Your task to perform on an android device: check google app version Image 0: 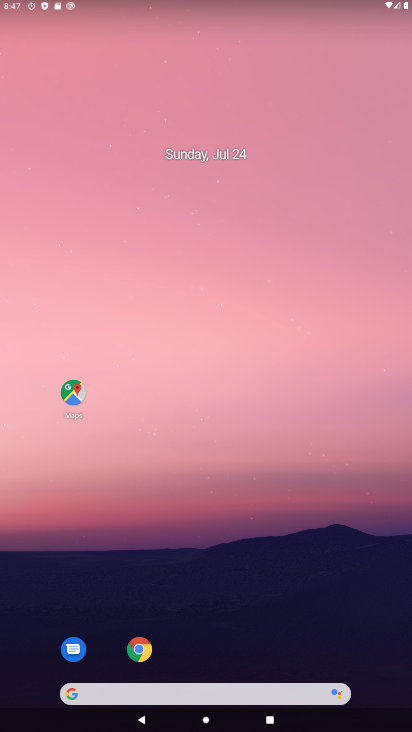
Step 0: drag from (205, 298) to (265, 76)
Your task to perform on an android device: check google app version Image 1: 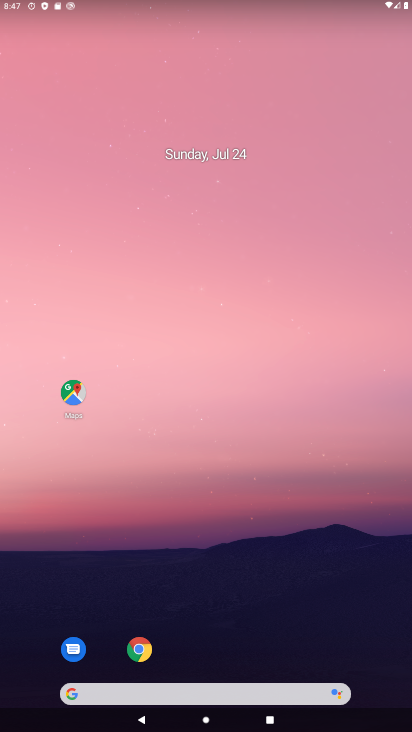
Step 1: drag from (24, 686) to (166, 171)
Your task to perform on an android device: check google app version Image 2: 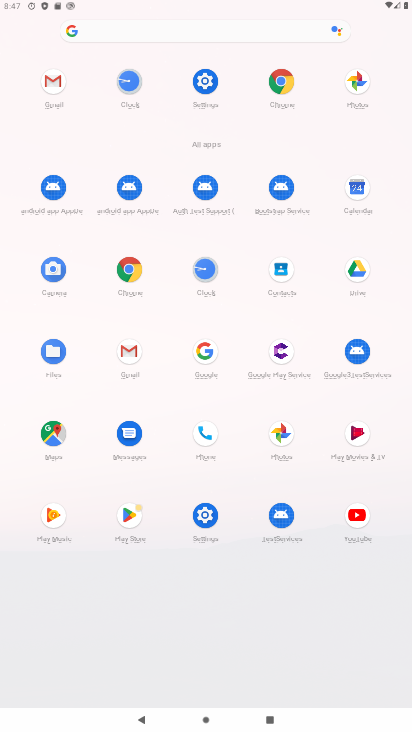
Step 2: click (188, 520)
Your task to perform on an android device: check google app version Image 3: 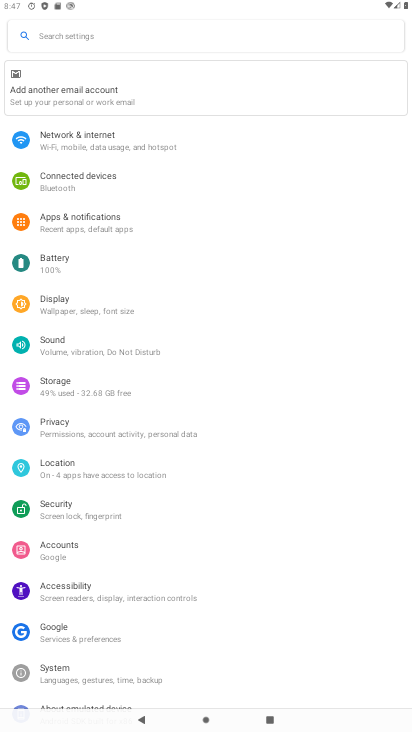
Step 3: drag from (254, 561) to (254, 266)
Your task to perform on an android device: check google app version Image 4: 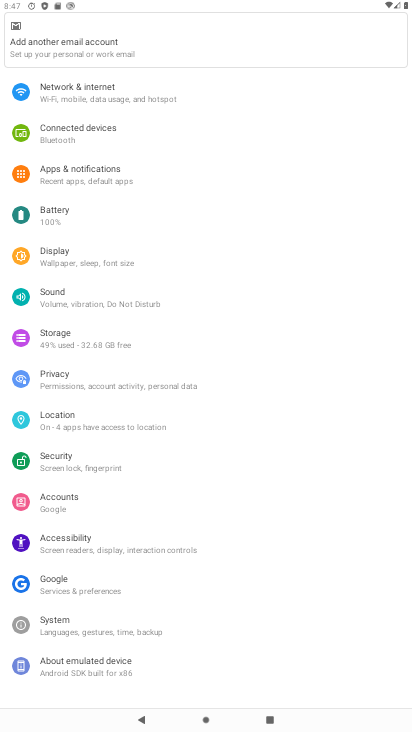
Step 4: click (74, 660)
Your task to perform on an android device: check google app version Image 5: 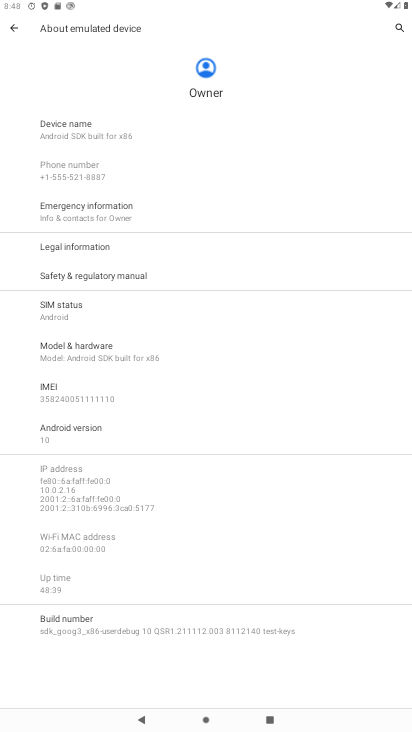
Step 5: drag from (240, 618) to (220, 382)
Your task to perform on an android device: check google app version Image 6: 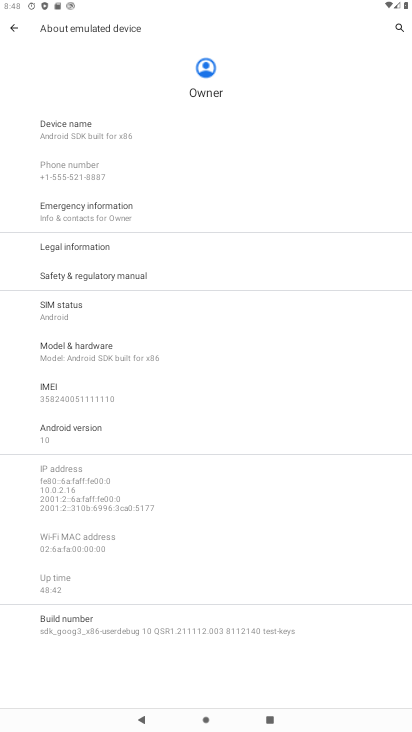
Step 6: drag from (250, 661) to (246, 404)
Your task to perform on an android device: check google app version Image 7: 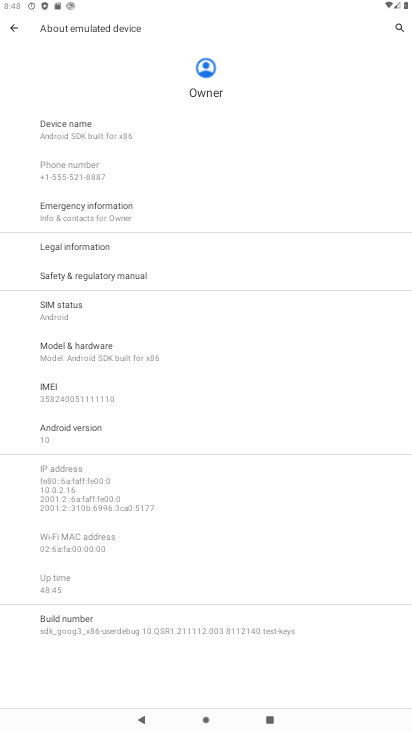
Step 7: click (101, 624)
Your task to perform on an android device: check google app version Image 8: 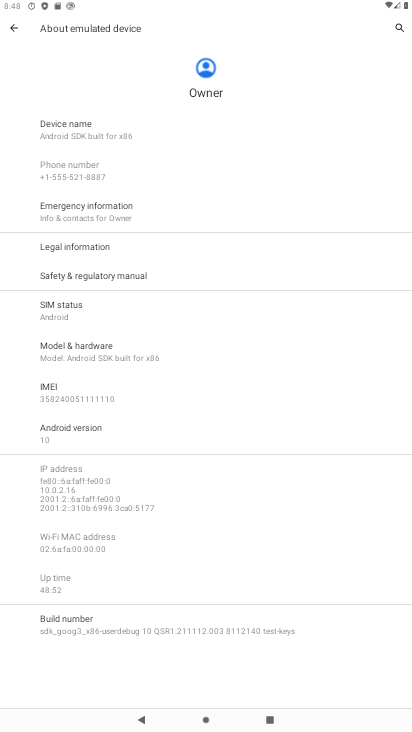
Step 8: click (48, 616)
Your task to perform on an android device: check google app version Image 9: 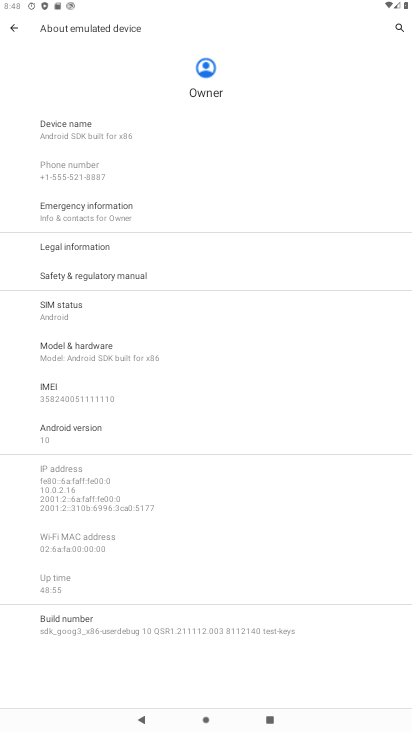
Step 9: click (77, 168)
Your task to perform on an android device: check google app version Image 10: 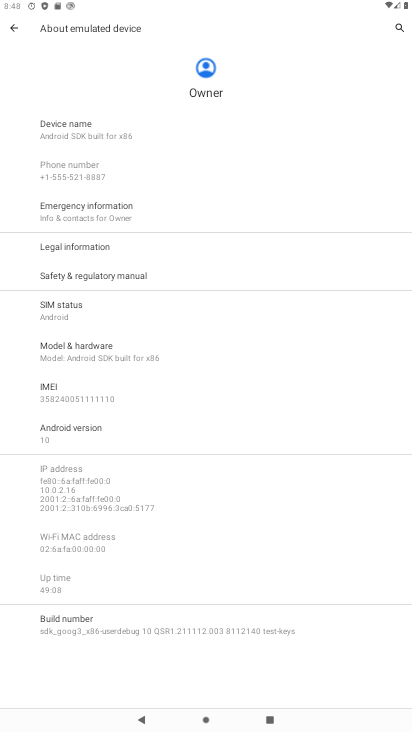
Step 10: task complete